Your task to perform on an android device: Open calendar and show me the first week of next month Image 0: 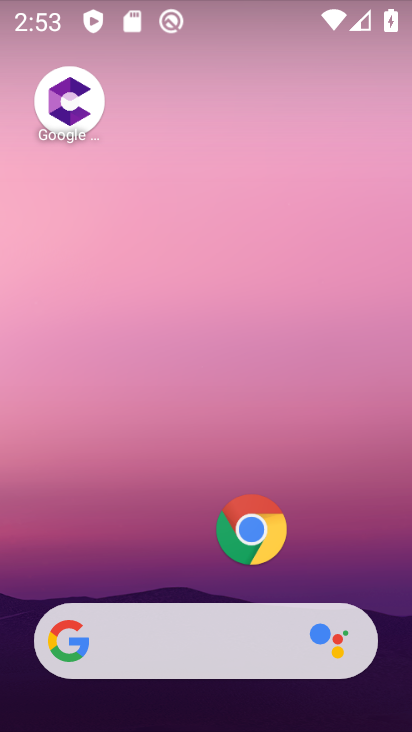
Step 0: drag from (121, 585) to (262, 161)
Your task to perform on an android device: Open calendar and show me the first week of next month Image 1: 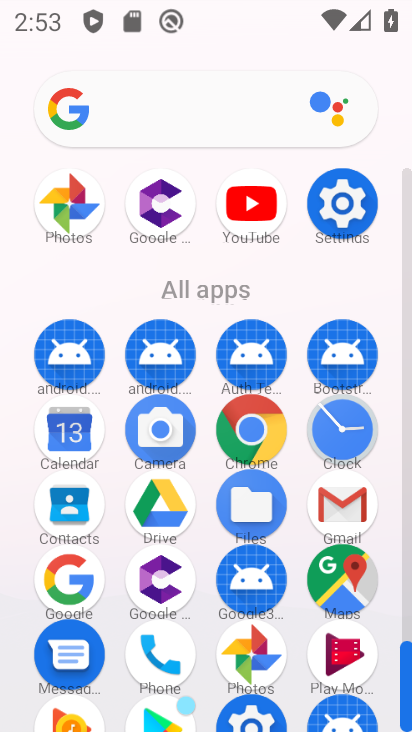
Step 1: drag from (211, 595) to (262, 389)
Your task to perform on an android device: Open calendar and show me the first week of next month Image 2: 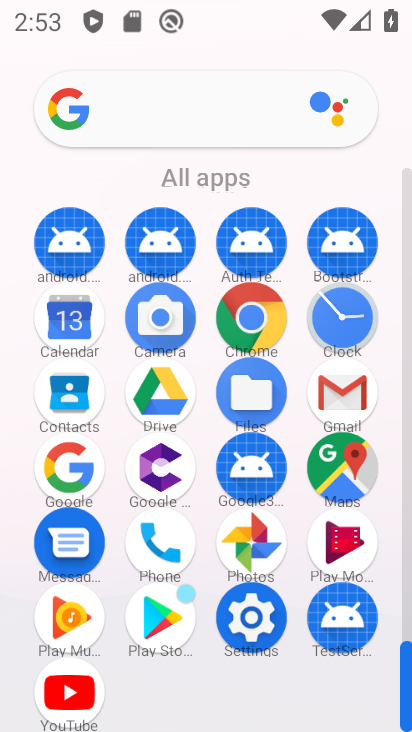
Step 2: click (49, 323)
Your task to perform on an android device: Open calendar and show me the first week of next month Image 3: 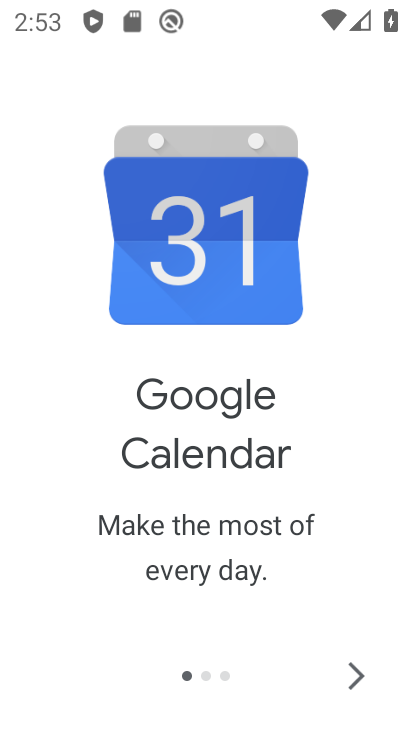
Step 3: click (364, 668)
Your task to perform on an android device: Open calendar and show me the first week of next month Image 4: 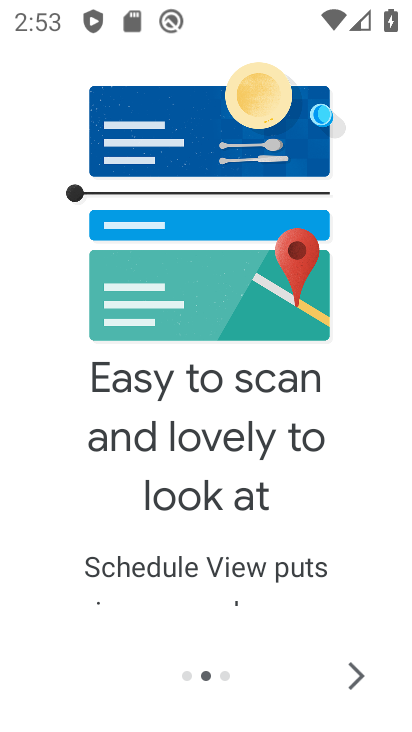
Step 4: click (364, 668)
Your task to perform on an android device: Open calendar and show me the first week of next month Image 5: 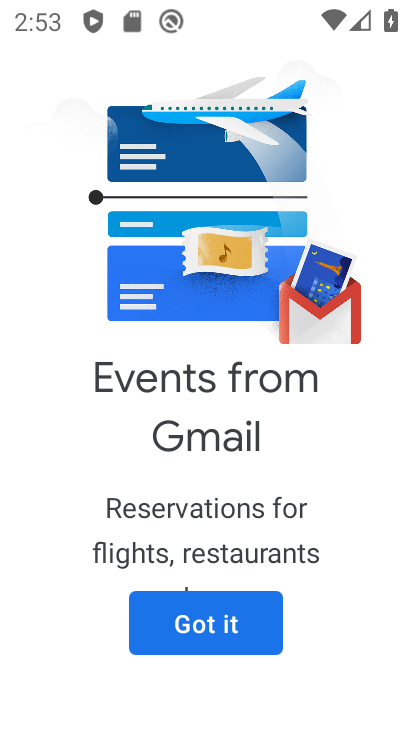
Step 5: click (362, 671)
Your task to perform on an android device: Open calendar and show me the first week of next month Image 6: 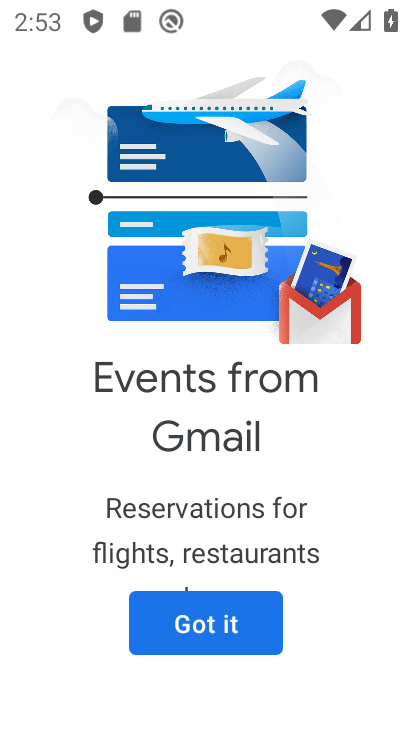
Step 6: click (240, 633)
Your task to perform on an android device: Open calendar and show me the first week of next month Image 7: 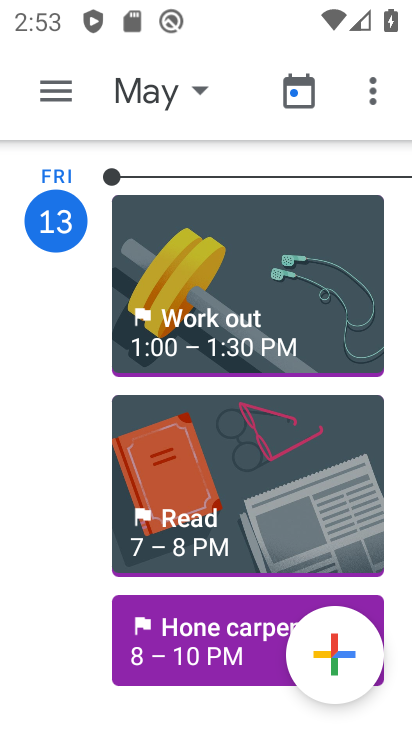
Step 7: click (147, 106)
Your task to perform on an android device: Open calendar and show me the first week of next month Image 8: 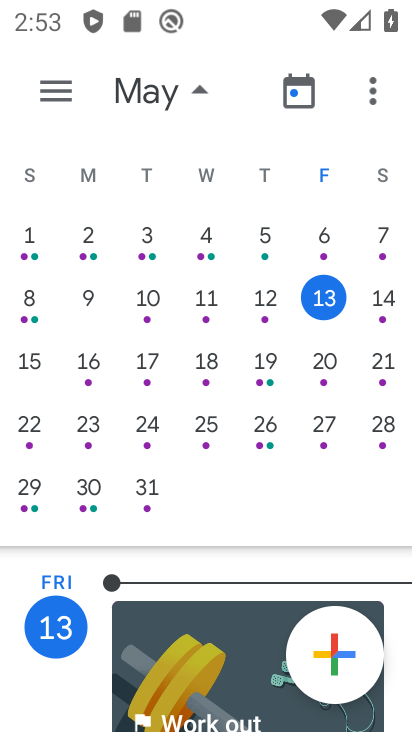
Step 8: drag from (362, 472) to (59, 484)
Your task to perform on an android device: Open calendar and show me the first week of next month Image 9: 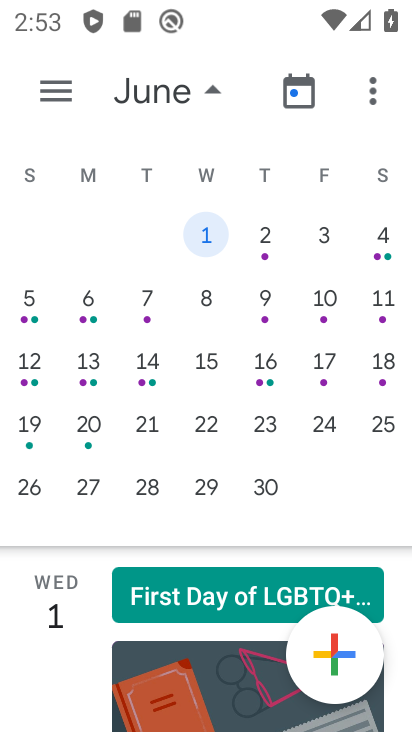
Step 9: click (55, 92)
Your task to perform on an android device: Open calendar and show me the first week of next month Image 10: 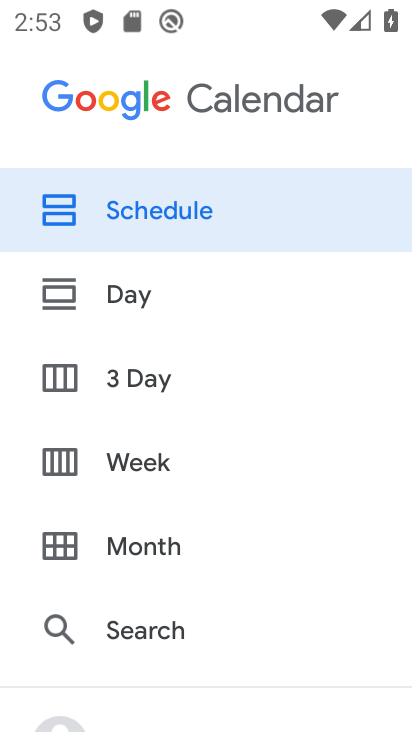
Step 10: click (106, 465)
Your task to perform on an android device: Open calendar and show me the first week of next month Image 11: 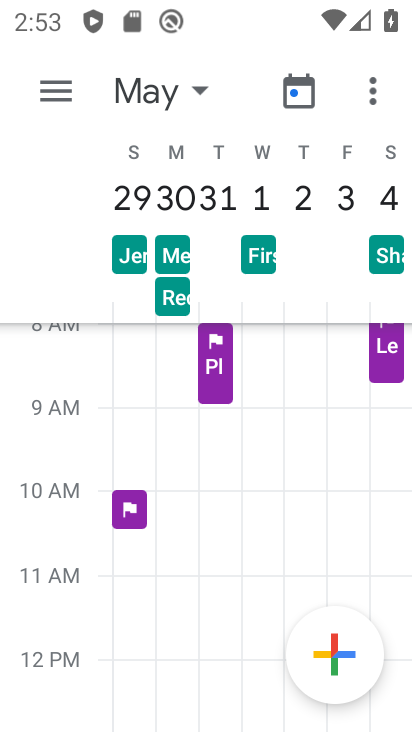
Step 11: click (150, 93)
Your task to perform on an android device: Open calendar and show me the first week of next month Image 12: 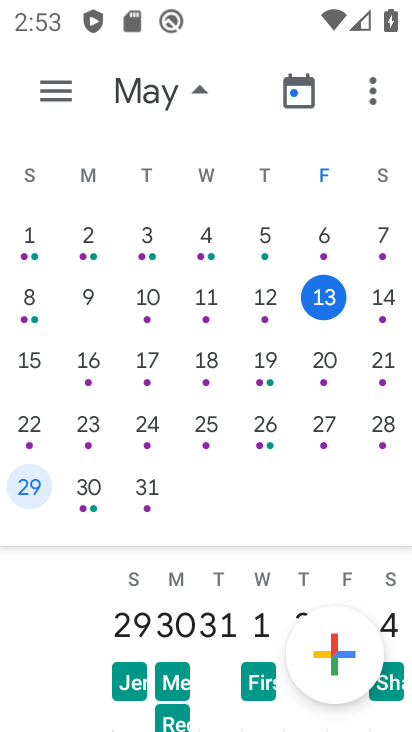
Step 12: drag from (313, 384) to (36, 360)
Your task to perform on an android device: Open calendar and show me the first week of next month Image 13: 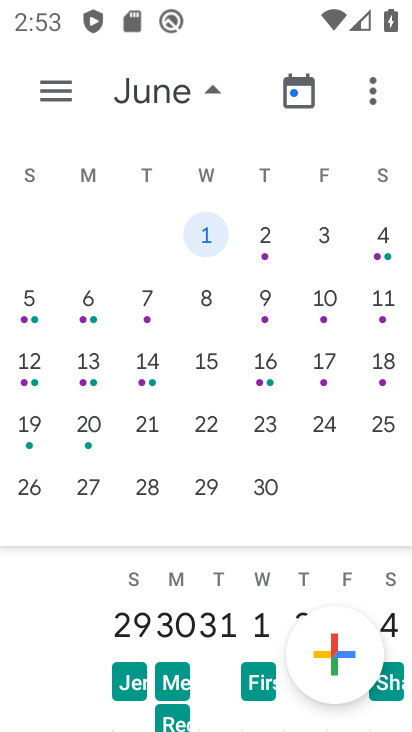
Step 13: click (41, 302)
Your task to perform on an android device: Open calendar and show me the first week of next month Image 14: 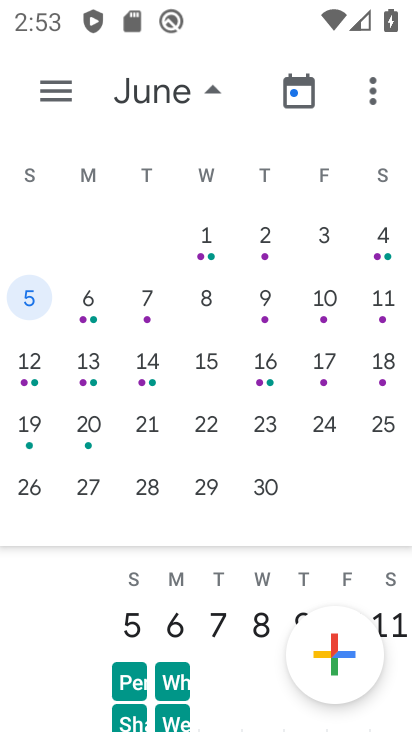
Step 14: click (203, 102)
Your task to perform on an android device: Open calendar and show me the first week of next month Image 15: 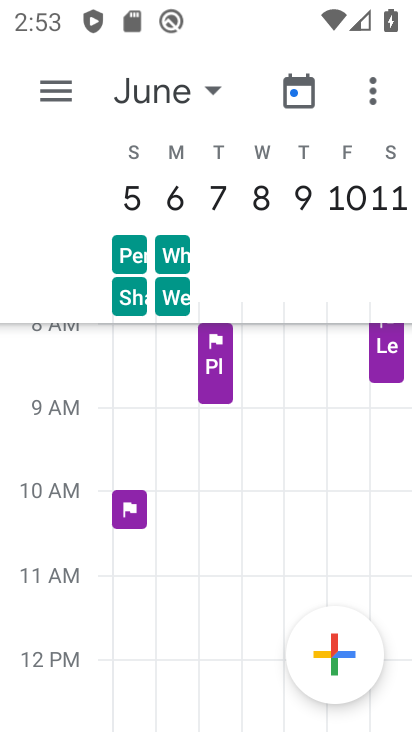
Step 15: task complete